Your task to perform on an android device: Open ESPN.com Image 0: 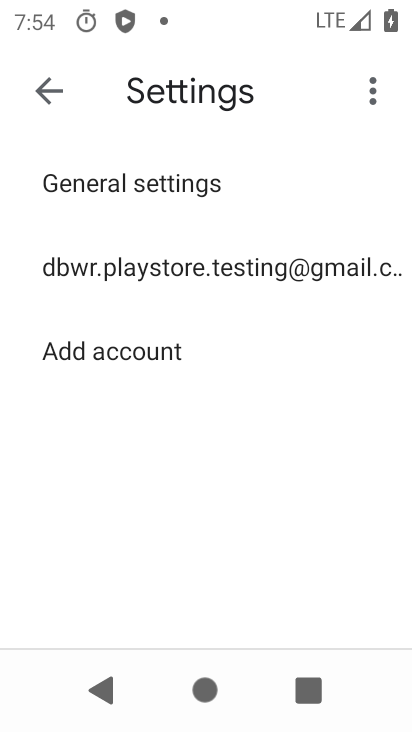
Step 0: press home button
Your task to perform on an android device: Open ESPN.com Image 1: 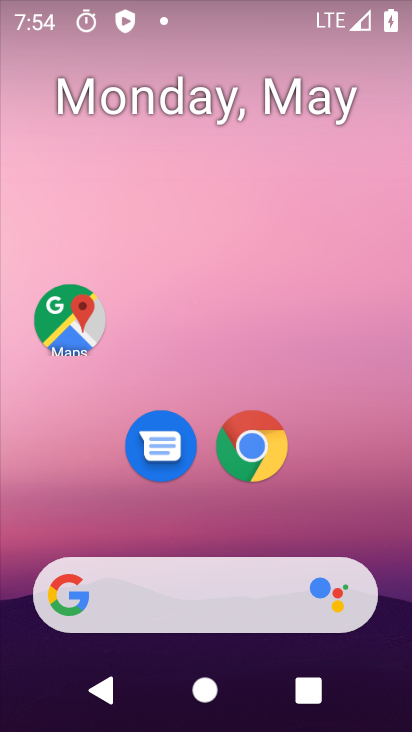
Step 1: click (253, 457)
Your task to perform on an android device: Open ESPN.com Image 2: 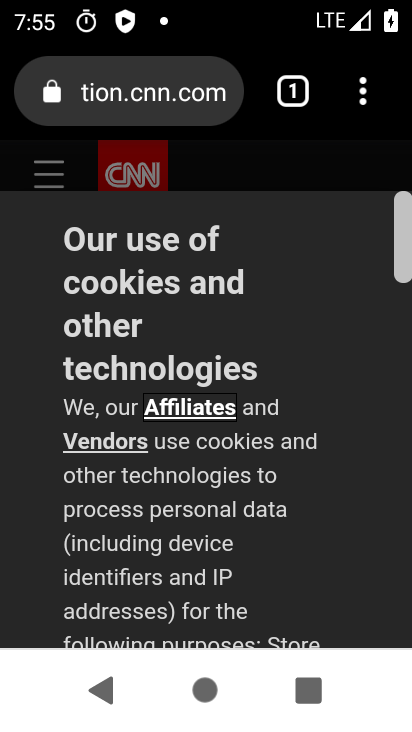
Step 2: click (115, 97)
Your task to perform on an android device: Open ESPN.com Image 3: 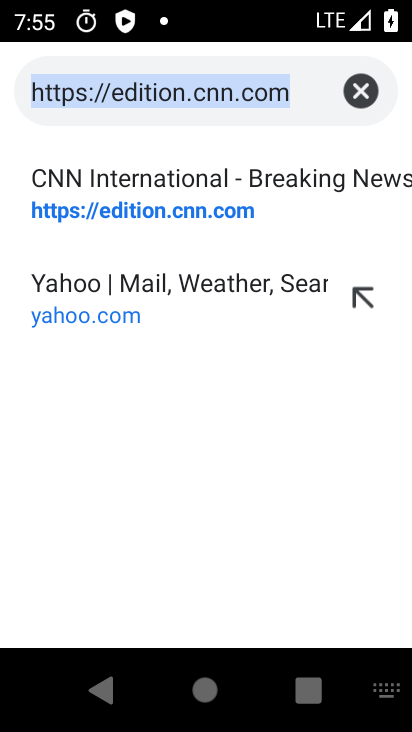
Step 3: click (362, 88)
Your task to perform on an android device: Open ESPN.com Image 4: 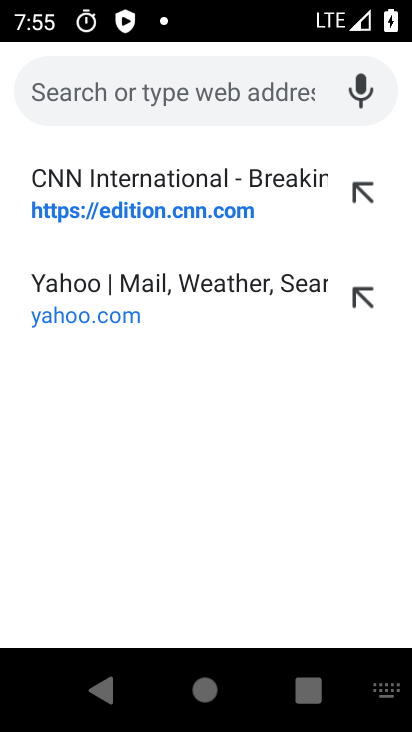
Step 4: type "espn.com"
Your task to perform on an android device: Open ESPN.com Image 5: 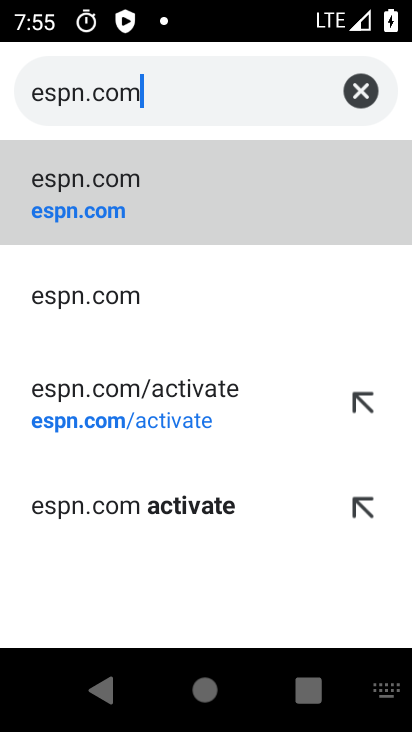
Step 5: click (94, 211)
Your task to perform on an android device: Open ESPN.com Image 6: 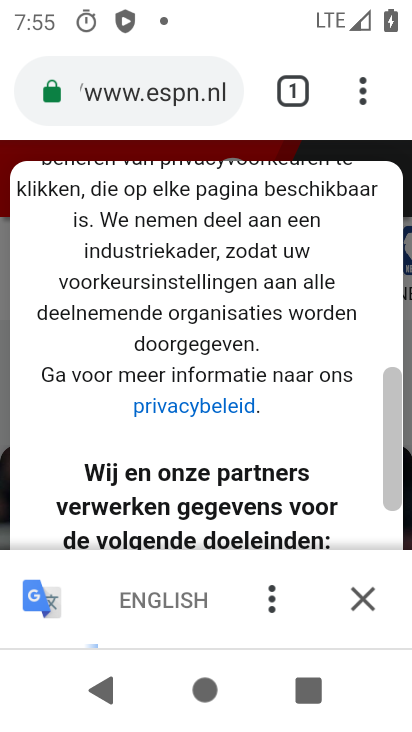
Step 6: task complete